Your task to perform on an android device: toggle notifications settings in the gmail app Image 0: 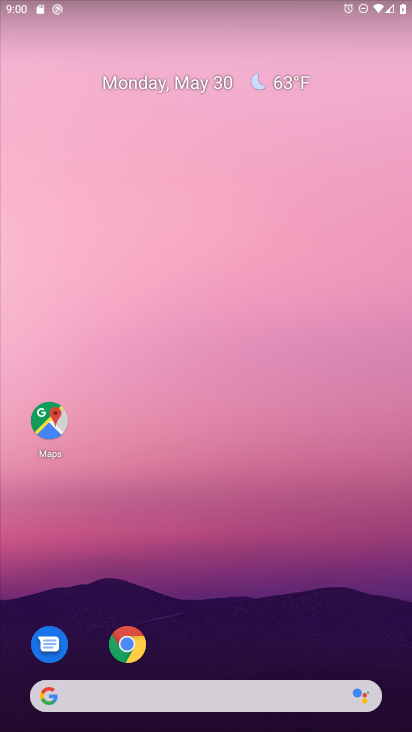
Step 0: drag from (205, 636) to (174, 54)
Your task to perform on an android device: toggle notifications settings in the gmail app Image 1: 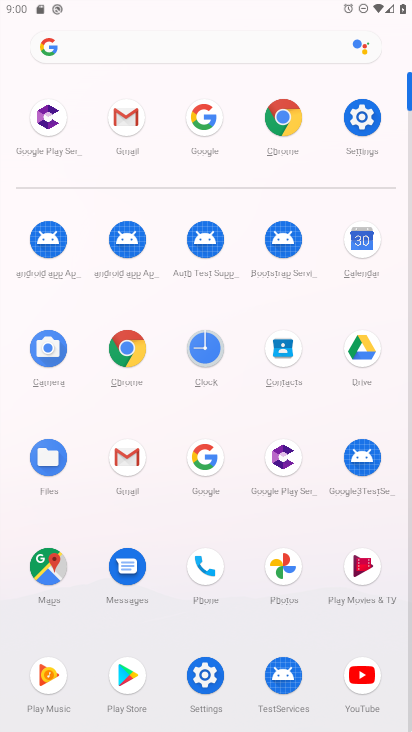
Step 1: click (123, 118)
Your task to perform on an android device: toggle notifications settings in the gmail app Image 2: 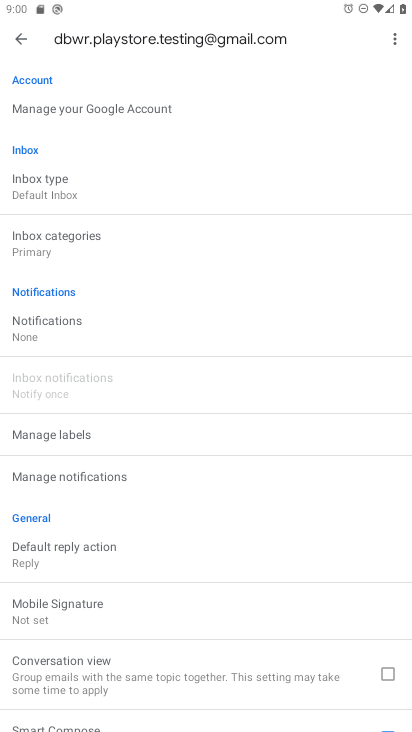
Step 2: click (62, 335)
Your task to perform on an android device: toggle notifications settings in the gmail app Image 3: 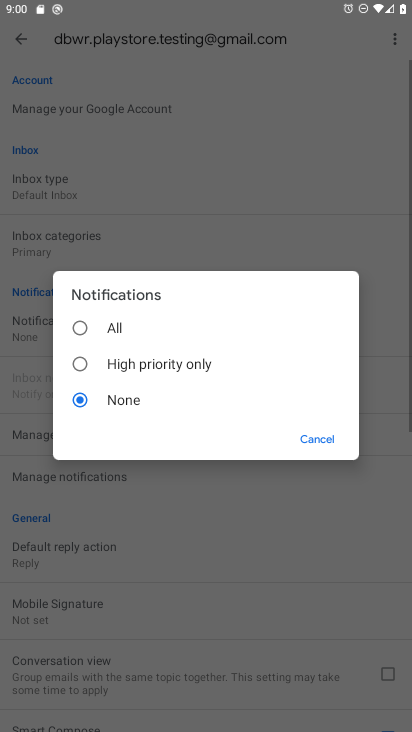
Step 3: click (77, 327)
Your task to perform on an android device: toggle notifications settings in the gmail app Image 4: 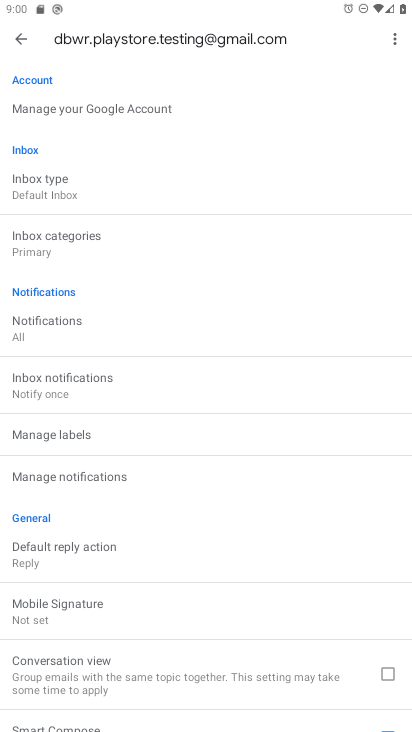
Step 4: task complete